Your task to perform on an android device: turn vacation reply on in the gmail app Image 0: 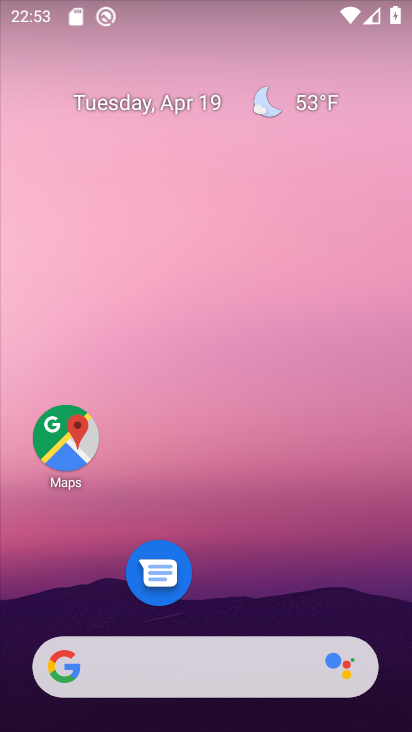
Step 0: drag from (221, 378) to (246, 94)
Your task to perform on an android device: turn vacation reply on in the gmail app Image 1: 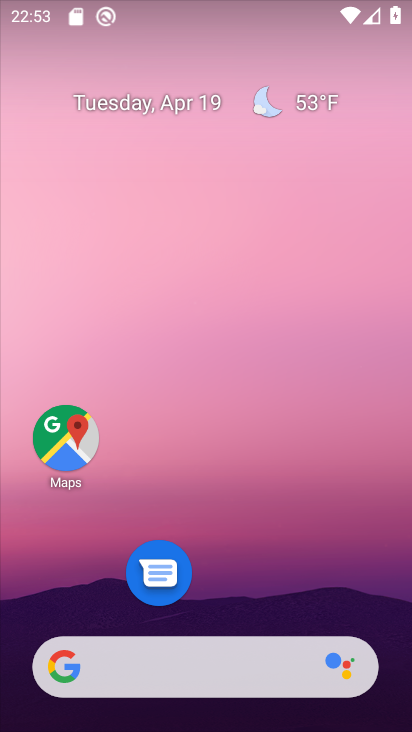
Step 1: drag from (230, 596) to (286, 76)
Your task to perform on an android device: turn vacation reply on in the gmail app Image 2: 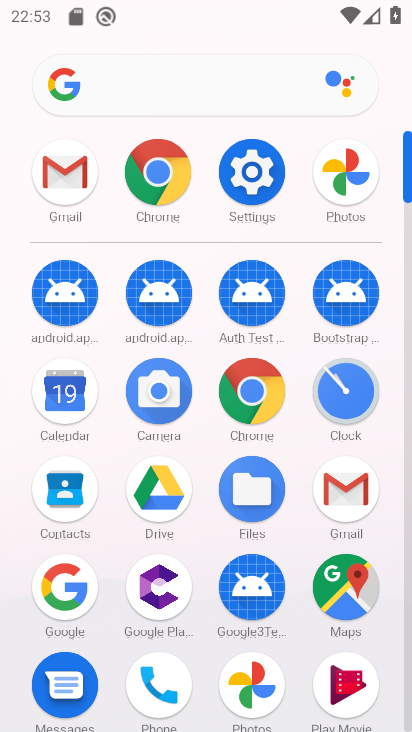
Step 2: click (343, 486)
Your task to perform on an android device: turn vacation reply on in the gmail app Image 3: 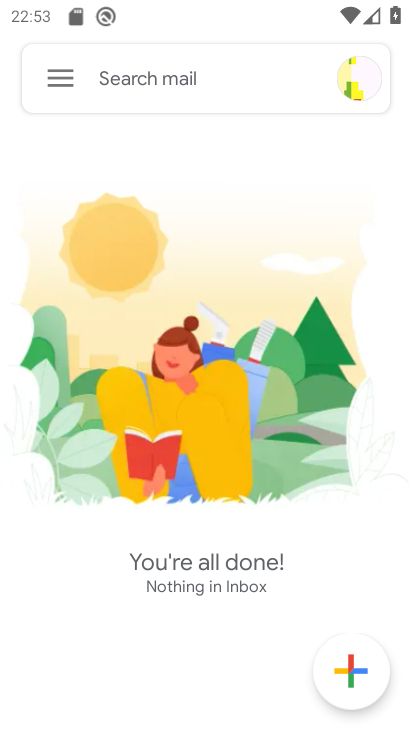
Step 3: click (51, 72)
Your task to perform on an android device: turn vacation reply on in the gmail app Image 4: 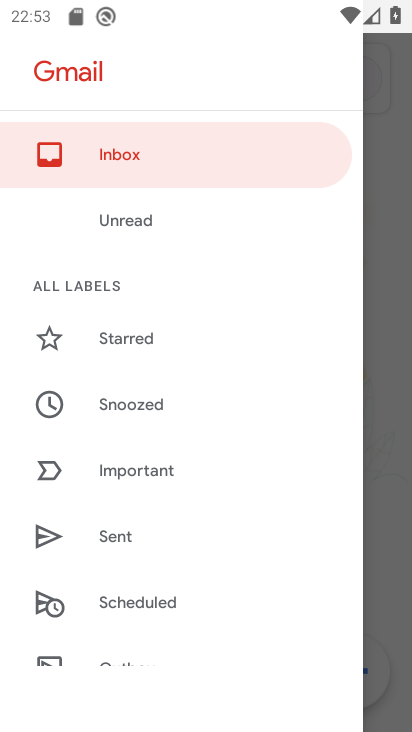
Step 4: drag from (165, 606) to (222, 95)
Your task to perform on an android device: turn vacation reply on in the gmail app Image 5: 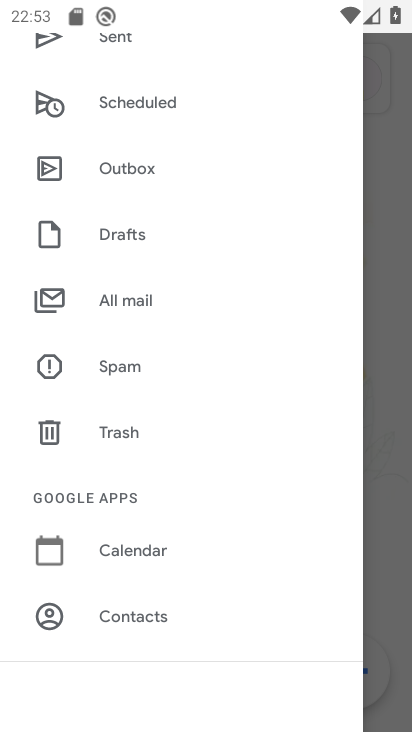
Step 5: drag from (170, 582) to (221, 194)
Your task to perform on an android device: turn vacation reply on in the gmail app Image 6: 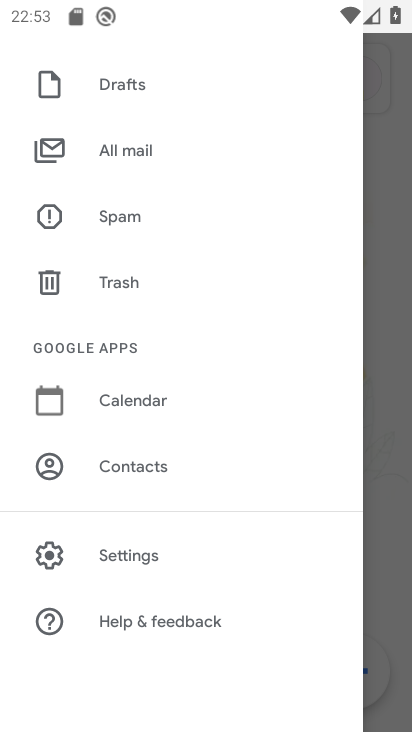
Step 6: click (163, 556)
Your task to perform on an android device: turn vacation reply on in the gmail app Image 7: 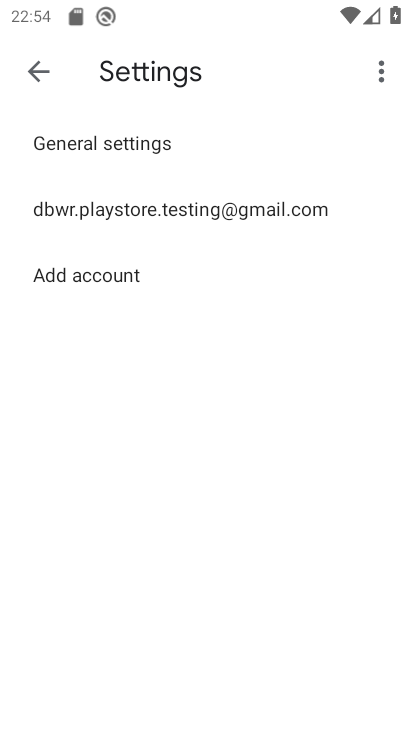
Step 7: click (194, 208)
Your task to perform on an android device: turn vacation reply on in the gmail app Image 8: 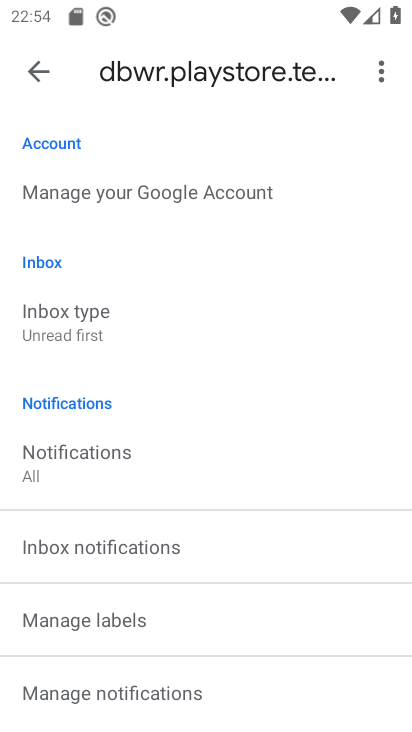
Step 8: drag from (215, 651) to (230, 567)
Your task to perform on an android device: turn vacation reply on in the gmail app Image 9: 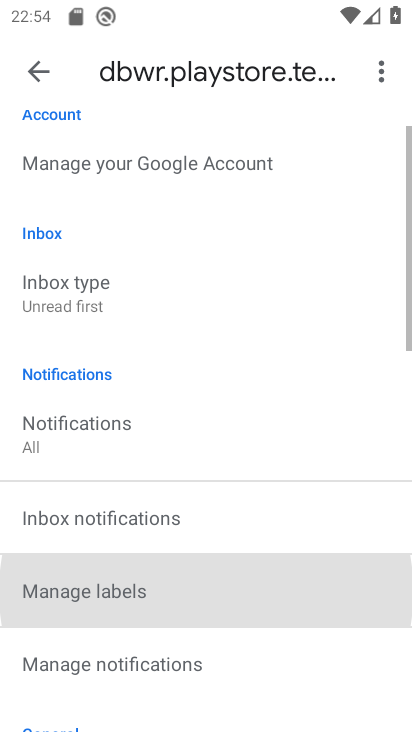
Step 9: drag from (269, 230) to (277, 175)
Your task to perform on an android device: turn vacation reply on in the gmail app Image 10: 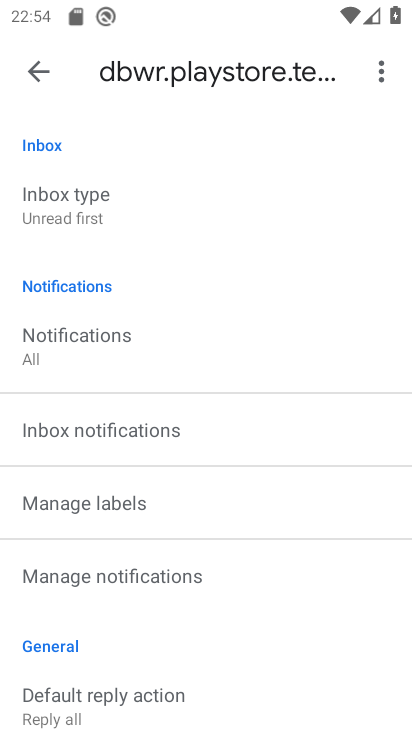
Step 10: drag from (206, 642) to (266, 144)
Your task to perform on an android device: turn vacation reply on in the gmail app Image 11: 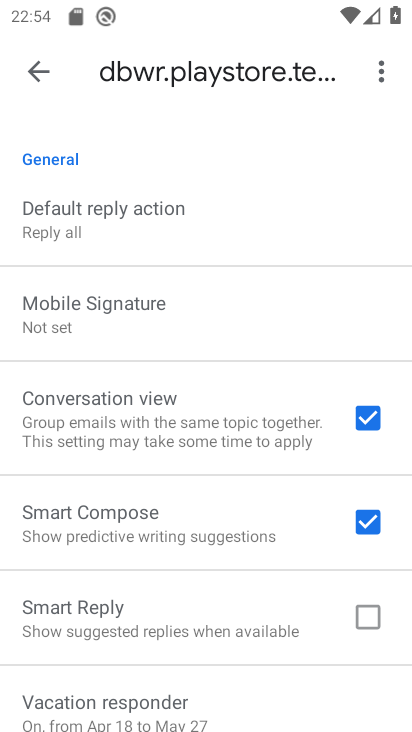
Step 11: click (194, 714)
Your task to perform on an android device: turn vacation reply on in the gmail app Image 12: 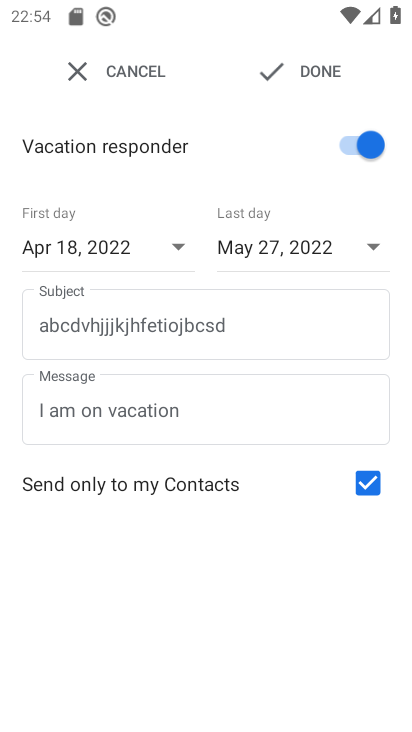
Step 12: task complete